Your task to perform on an android device: see creations saved in the google photos Image 0: 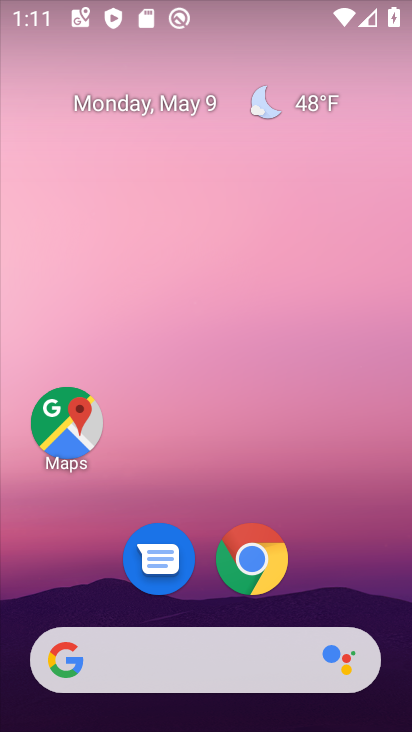
Step 0: drag from (329, 578) to (326, 262)
Your task to perform on an android device: see creations saved in the google photos Image 1: 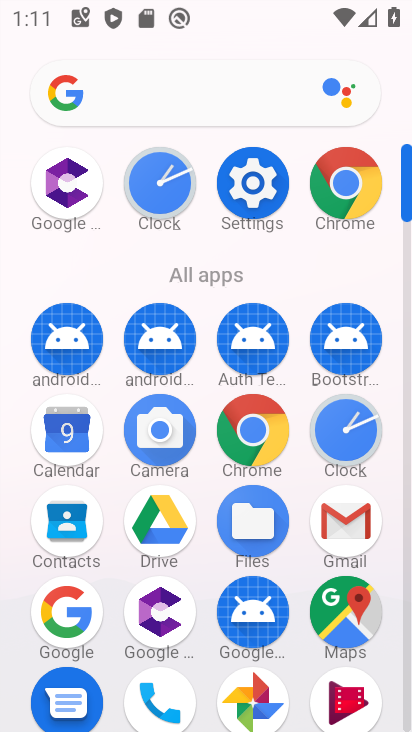
Step 1: drag from (250, 565) to (329, 264)
Your task to perform on an android device: see creations saved in the google photos Image 2: 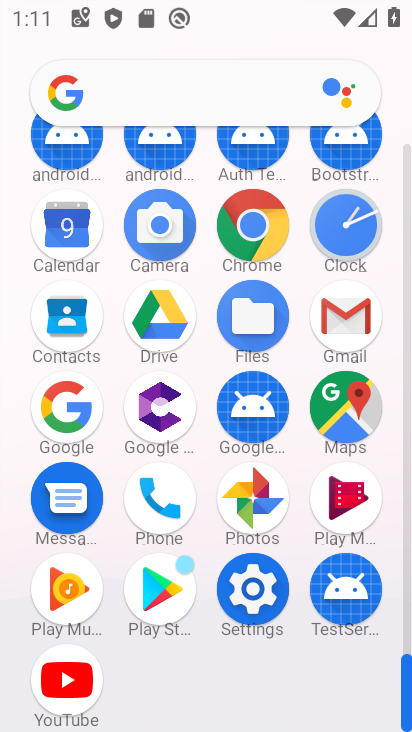
Step 2: click (256, 492)
Your task to perform on an android device: see creations saved in the google photos Image 3: 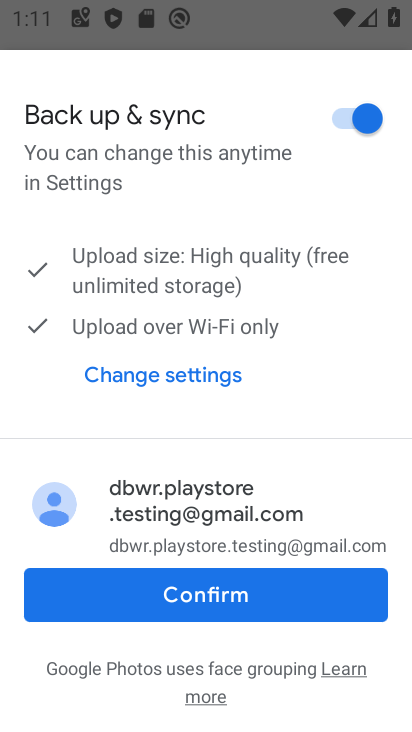
Step 3: click (286, 594)
Your task to perform on an android device: see creations saved in the google photos Image 4: 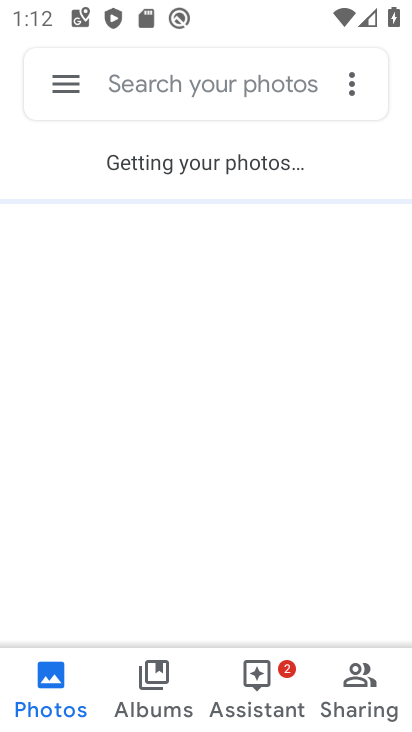
Step 4: click (146, 682)
Your task to perform on an android device: see creations saved in the google photos Image 5: 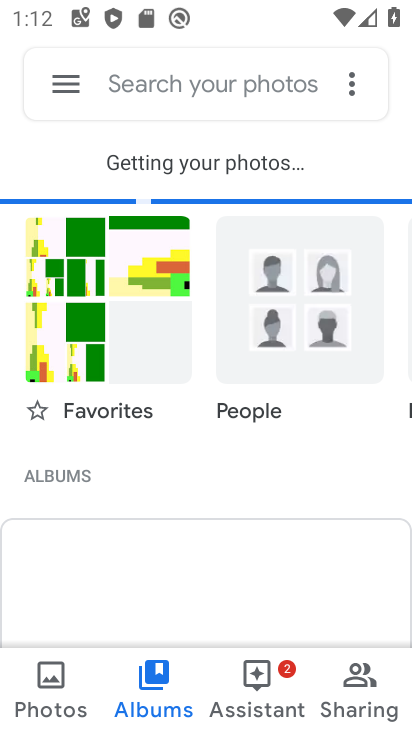
Step 5: click (57, 274)
Your task to perform on an android device: see creations saved in the google photos Image 6: 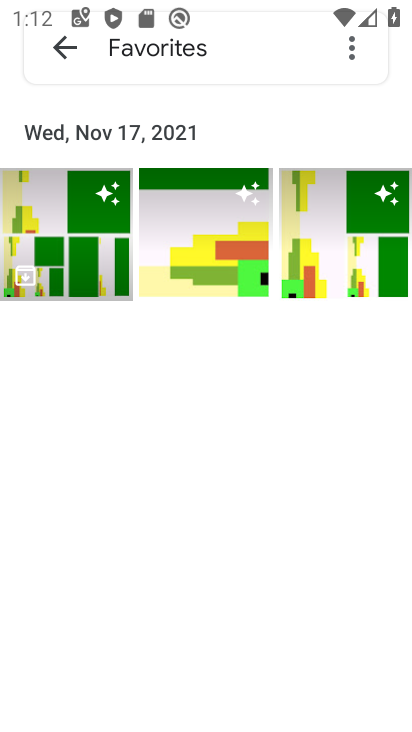
Step 6: task complete